Your task to perform on an android device: stop showing notifications on the lock screen Image 0: 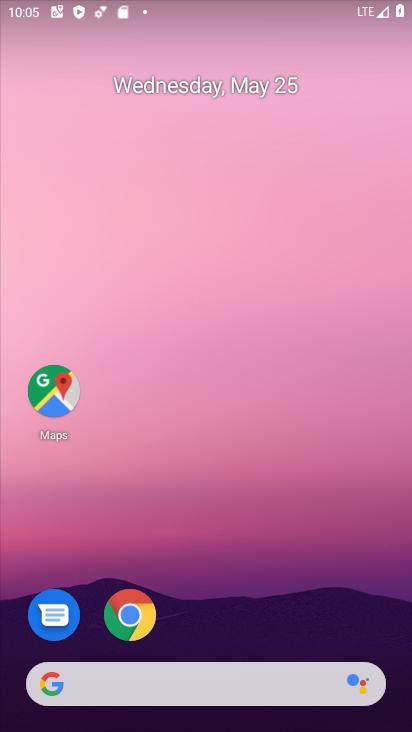
Step 0: drag from (272, 619) to (203, 0)
Your task to perform on an android device: stop showing notifications on the lock screen Image 1: 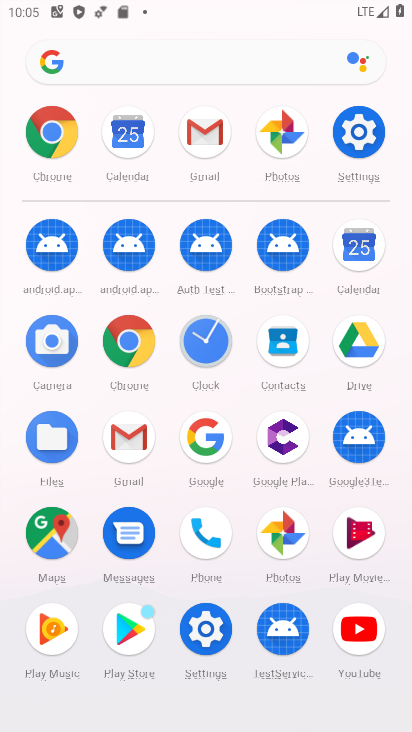
Step 1: click (362, 135)
Your task to perform on an android device: stop showing notifications on the lock screen Image 2: 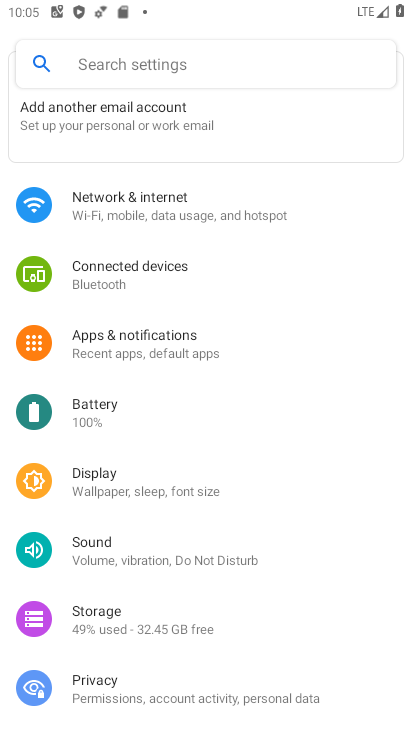
Step 2: click (194, 345)
Your task to perform on an android device: stop showing notifications on the lock screen Image 3: 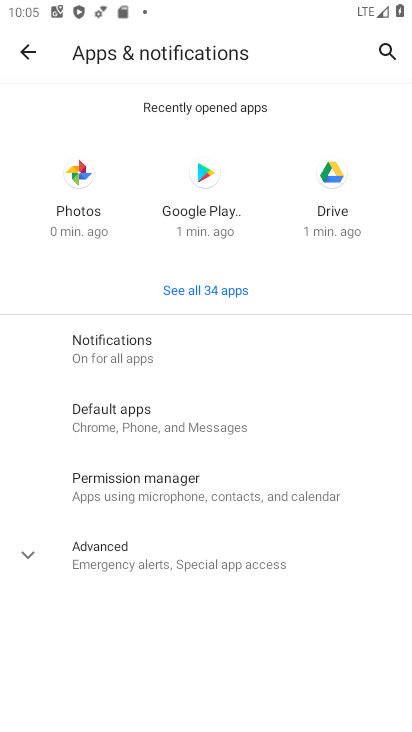
Step 3: click (194, 345)
Your task to perform on an android device: stop showing notifications on the lock screen Image 4: 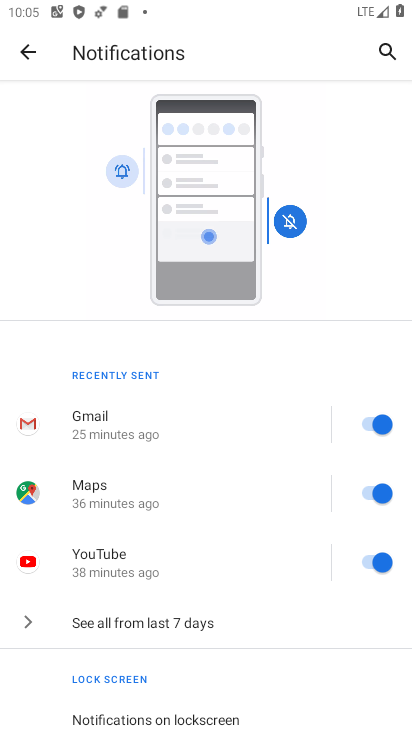
Step 4: drag from (239, 532) to (272, 205)
Your task to perform on an android device: stop showing notifications on the lock screen Image 5: 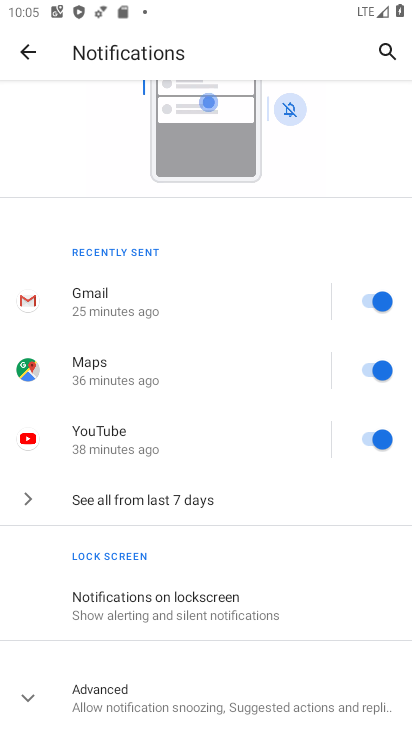
Step 5: click (253, 598)
Your task to perform on an android device: stop showing notifications on the lock screen Image 6: 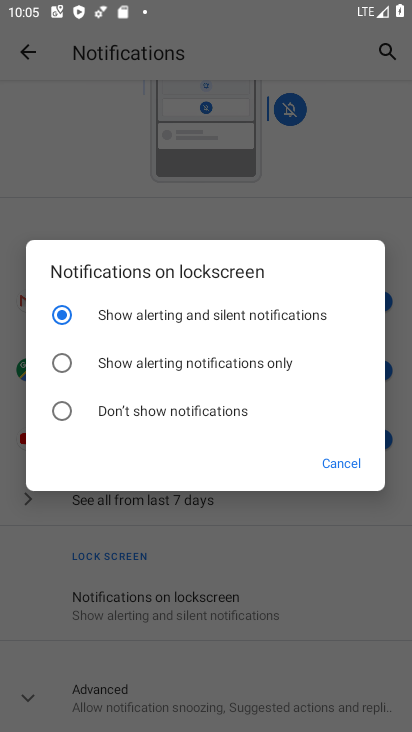
Step 6: click (56, 402)
Your task to perform on an android device: stop showing notifications on the lock screen Image 7: 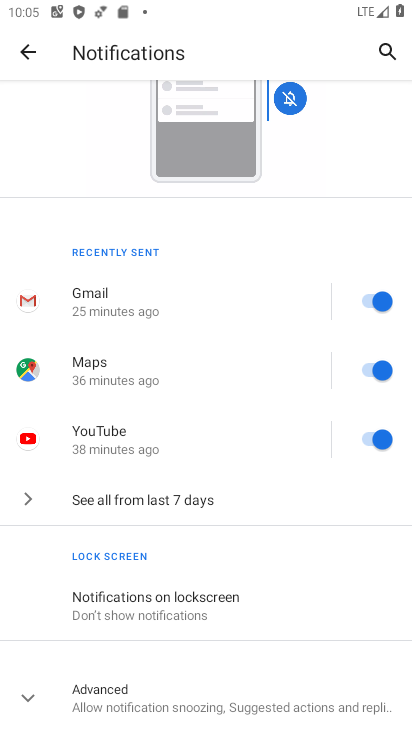
Step 7: task complete